Your task to perform on an android device: add a contact in the contacts app Image 0: 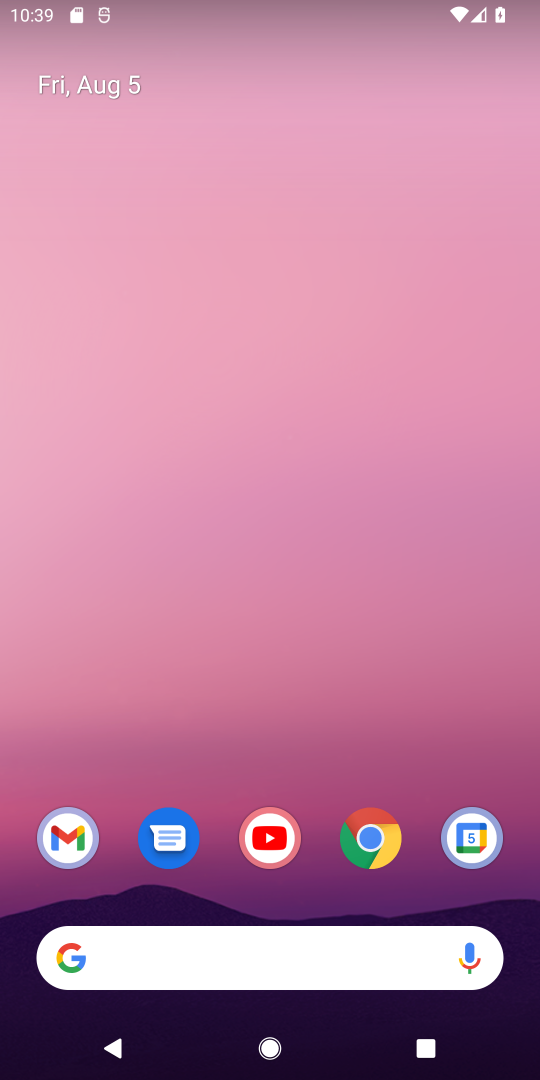
Step 0: drag from (183, 736) to (16, 49)
Your task to perform on an android device: add a contact in the contacts app Image 1: 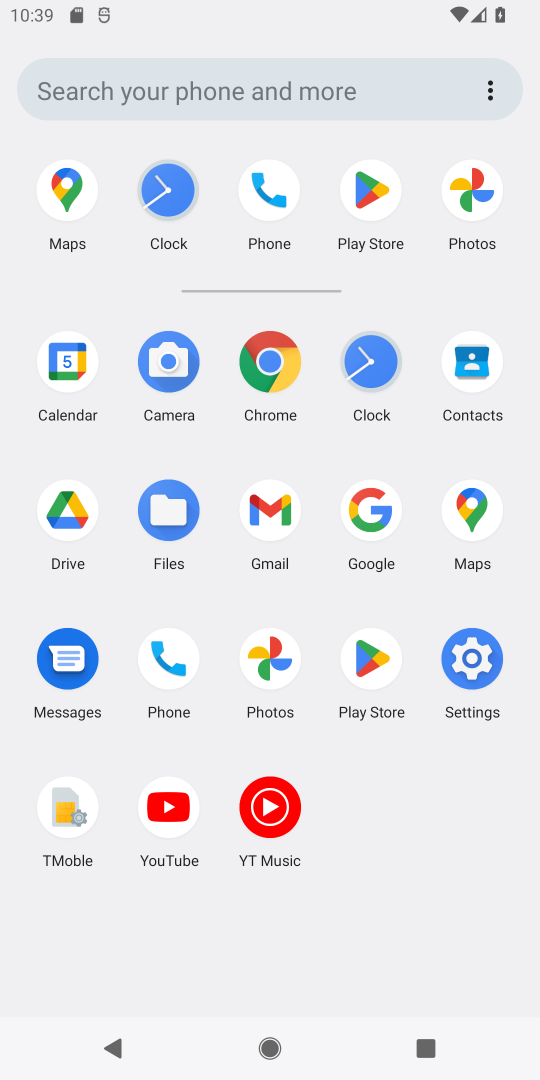
Step 1: click (459, 357)
Your task to perform on an android device: add a contact in the contacts app Image 2: 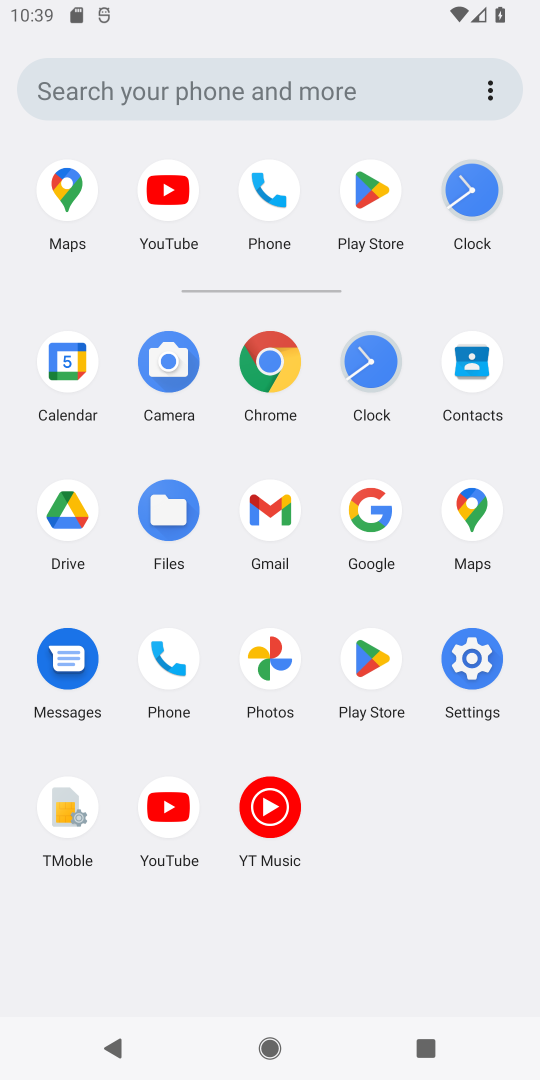
Step 2: click (472, 358)
Your task to perform on an android device: add a contact in the contacts app Image 3: 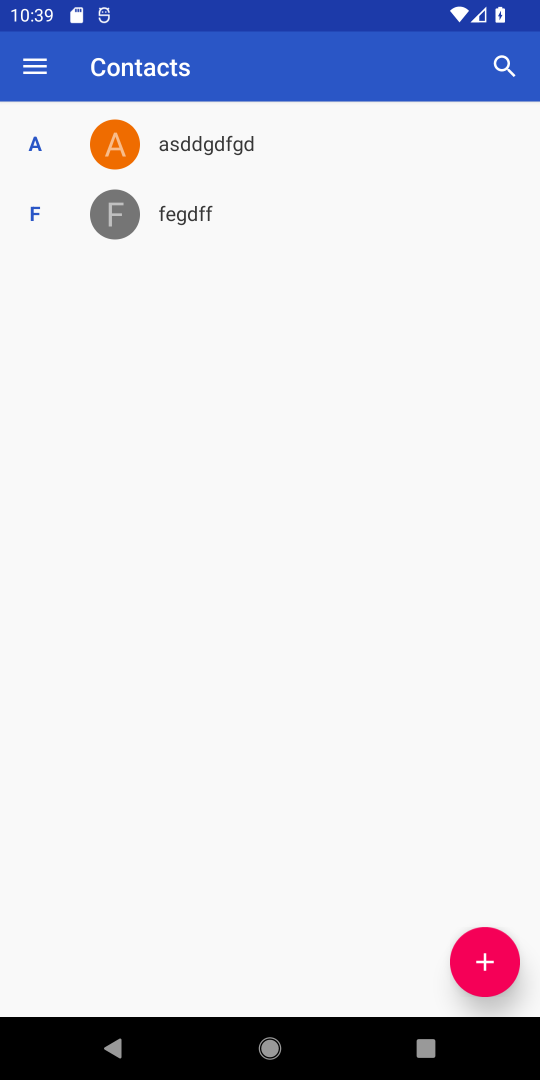
Step 3: click (495, 973)
Your task to perform on an android device: add a contact in the contacts app Image 4: 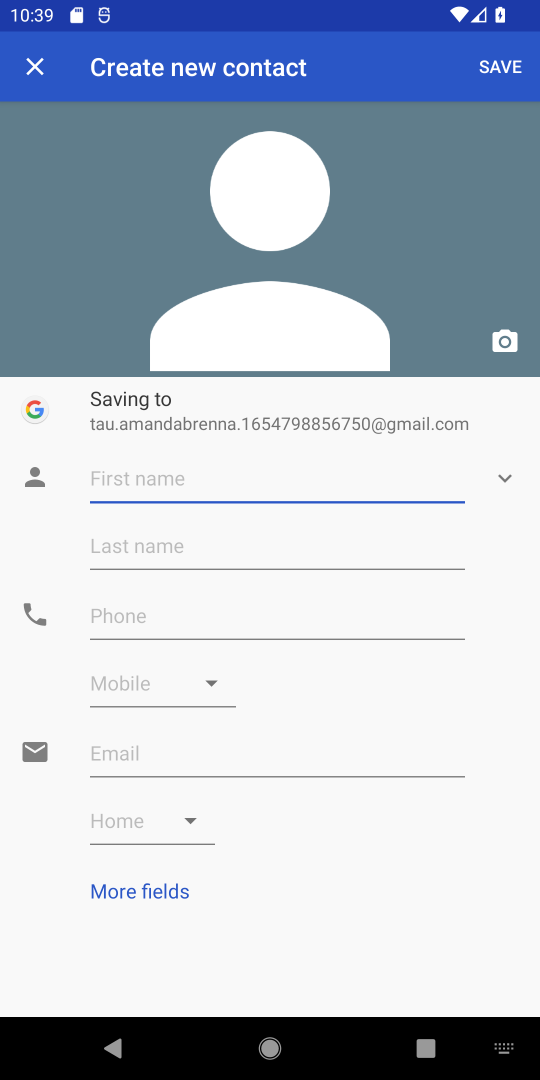
Step 4: type "bgcnbvn"
Your task to perform on an android device: add a contact in the contacts app Image 5: 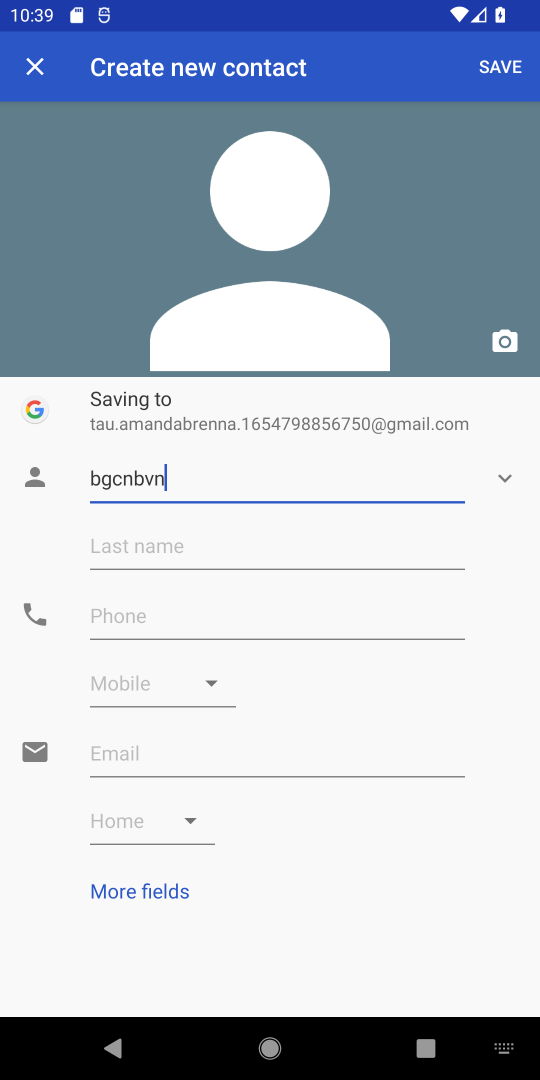
Step 5: click (131, 623)
Your task to perform on an android device: add a contact in the contacts app Image 6: 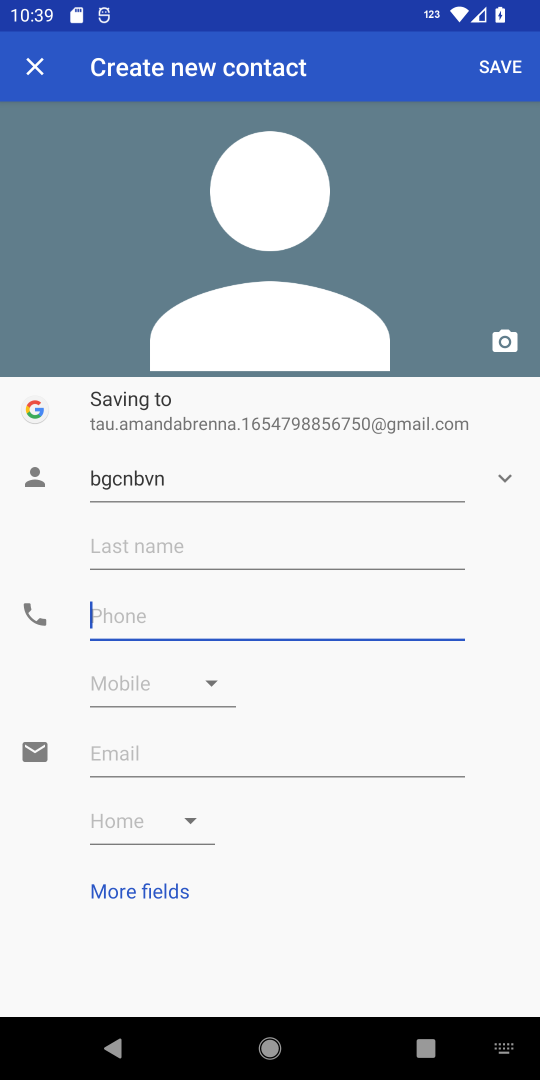
Step 6: click (131, 623)
Your task to perform on an android device: add a contact in the contacts app Image 7: 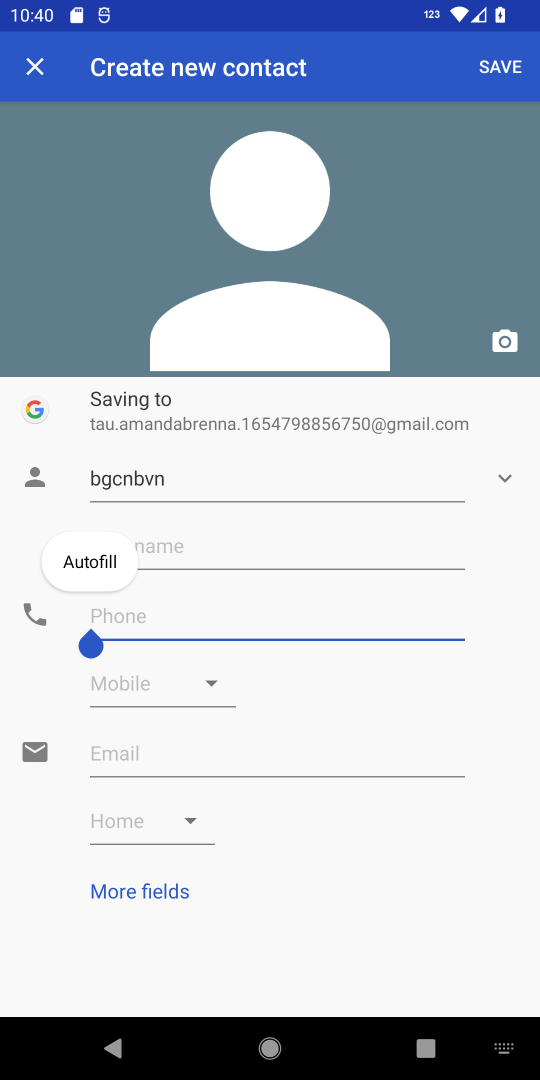
Step 7: type "4546545'"
Your task to perform on an android device: add a contact in the contacts app Image 8: 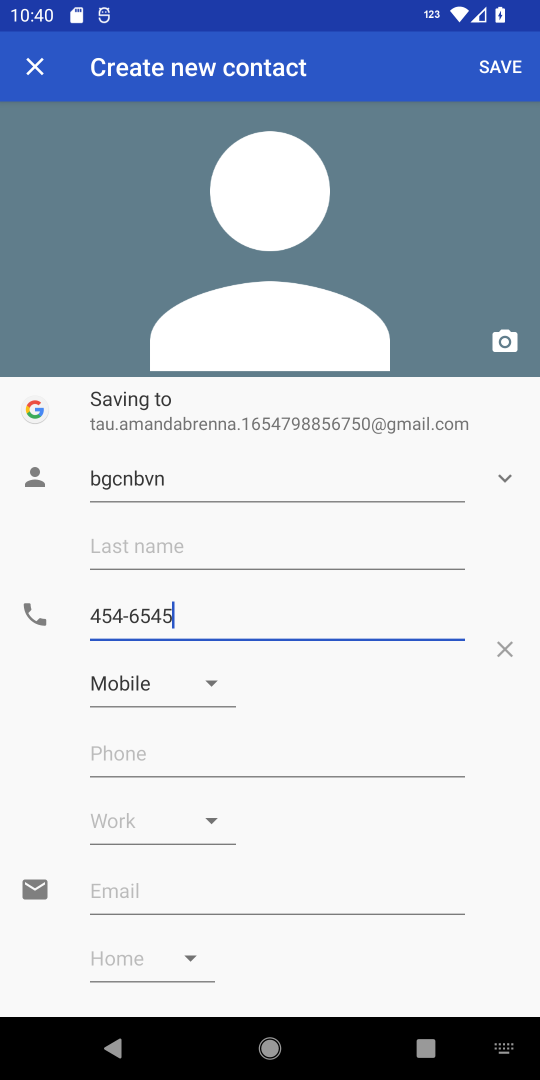
Step 8: click (490, 75)
Your task to perform on an android device: add a contact in the contacts app Image 9: 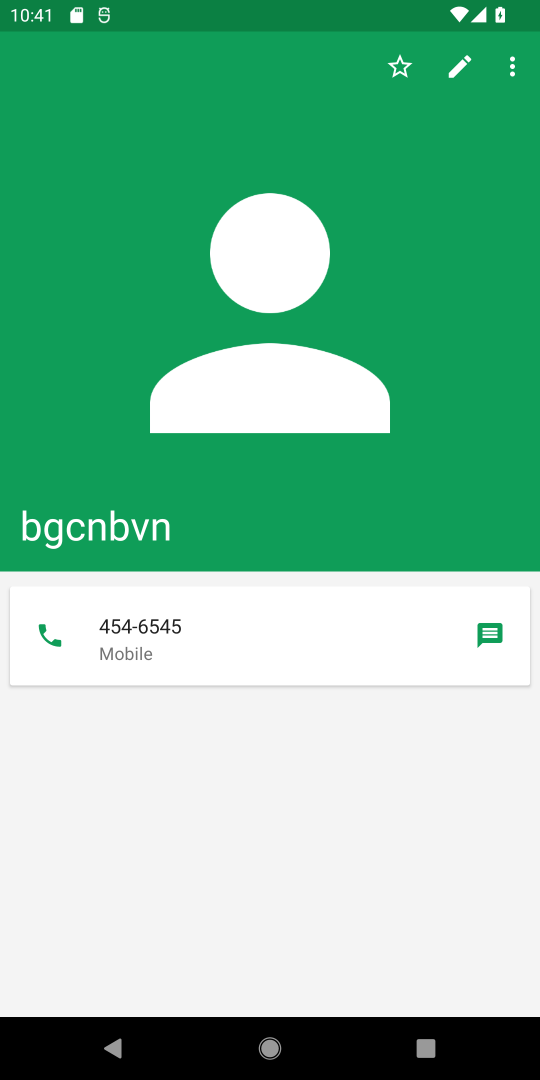
Step 9: task complete